Your task to perform on an android device: Toggle the flashlight Image 0: 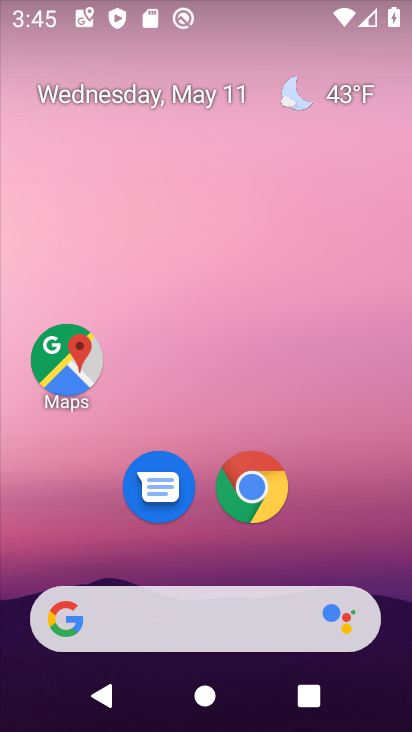
Step 0: drag from (296, 548) to (337, 151)
Your task to perform on an android device: Toggle the flashlight Image 1: 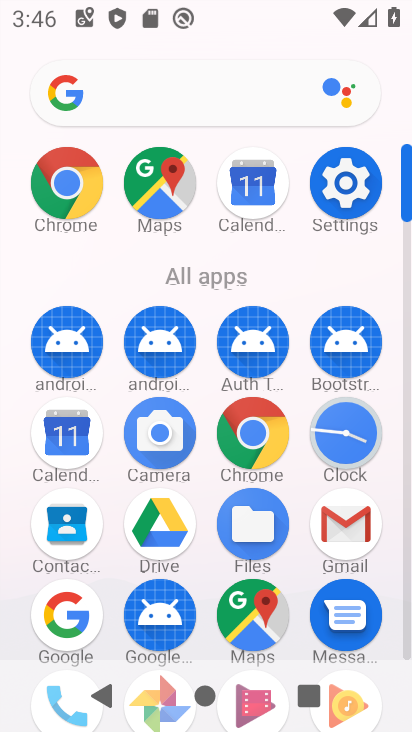
Step 1: task complete